Your task to perform on an android device: Open Android settings Image 0: 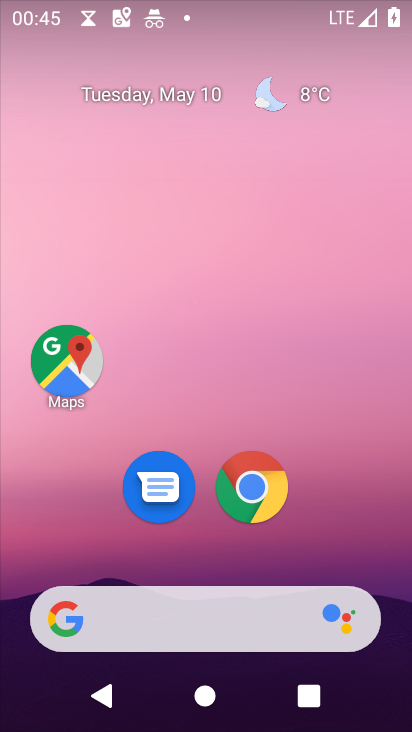
Step 0: drag from (209, 551) to (229, 84)
Your task to perform on an android device: Open Android settings Image 1: 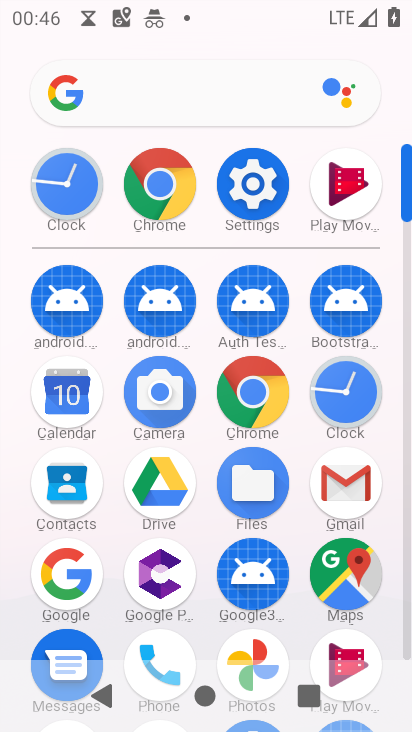
Step 1: click (251, 177)
Your task to perform on an android device: Open Android settings Image 2: 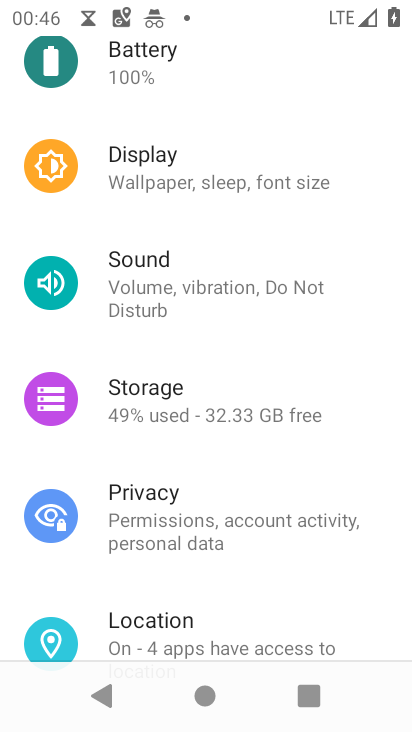
Step 2: drag from (207, 608) to (233, 118)
Your task to perform on an android device: Open Android settings Image 3: 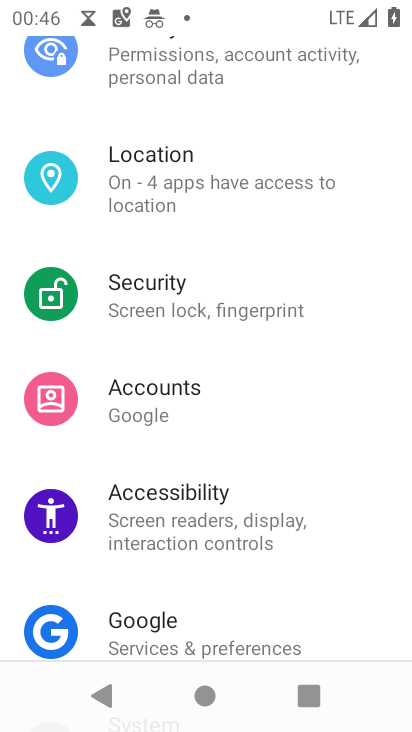
Step 3: drag from (193, 622) to (197, 149)
Your task to perform on an android device: Open Android settings Image 4: 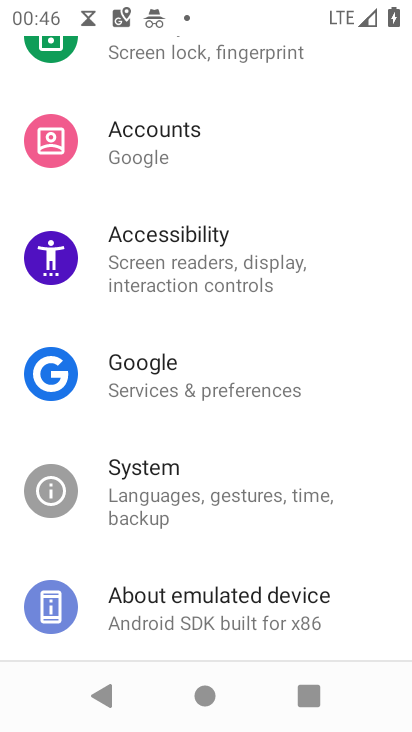
Step 4: click (184, 612)
Your task to perform on an android device: Open Android settings Image 5: 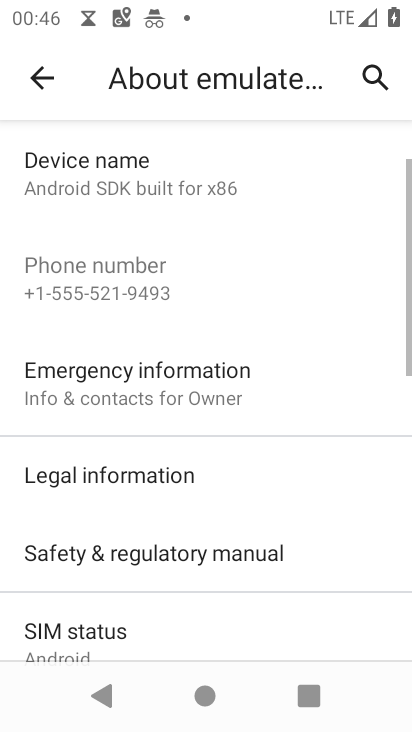
Step 5: drag from (215, 612) to (186, 119)
Your task to perform on an android device: Open Android settings Image 6: 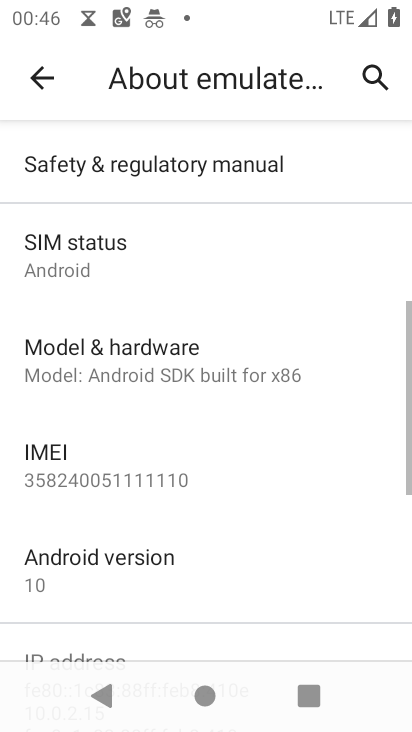
Step 6: click (72, 577)
Your task to perform on an android device: Open Android settings Image 7: 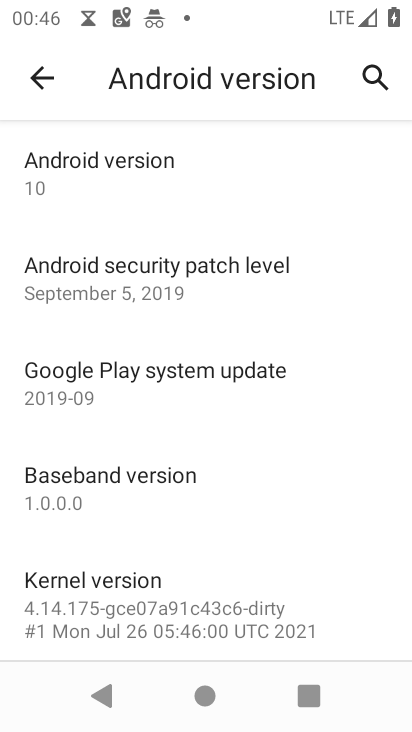
Step 7: task complete